Your task to perform on an android device: Go to eBay Image 0: 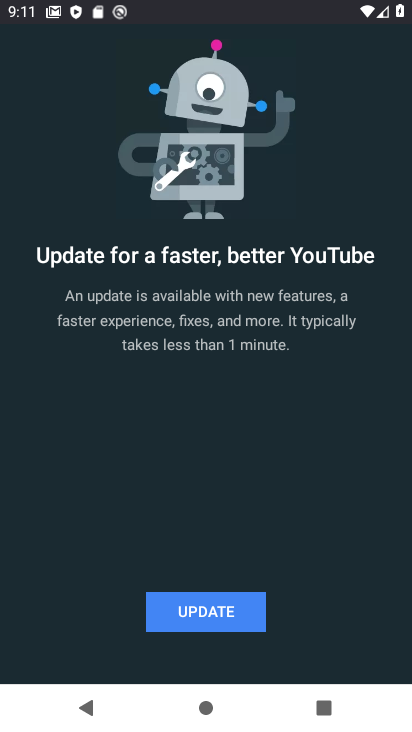
Step 0: press home button
Your task to perform on an android device: Go to eBay Image 1: 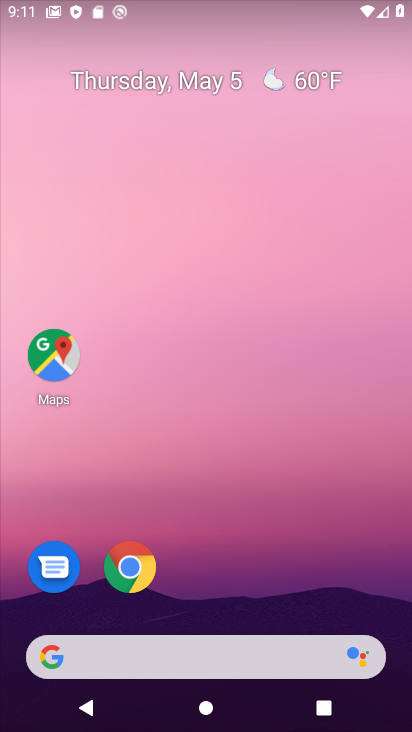
Step 1: click (211, 588)
Your task to perform on an android device: Go to eBay Image 2: 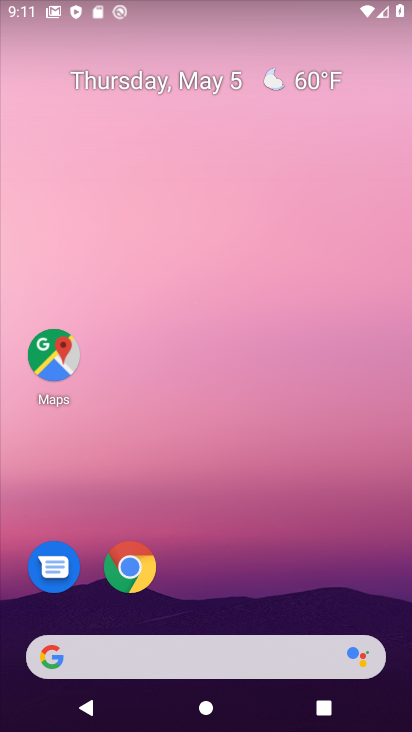
Step 2: click (141, 570)
Your task to perform on an android device: Go to eBay Image 3: 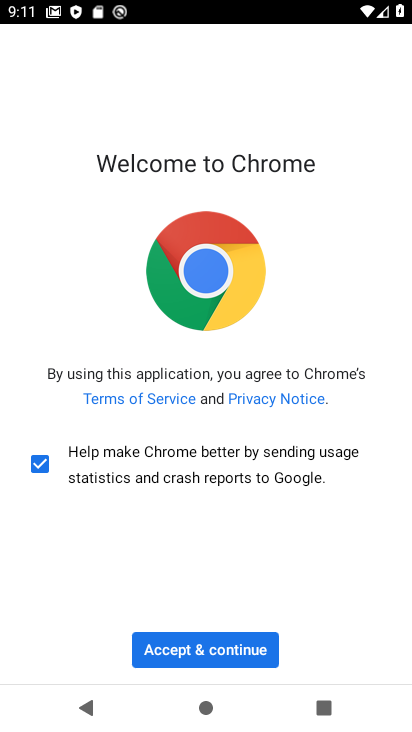
Step 3: click (168, 645)
Your task to perform on an android device: Go to eBay Image 4: 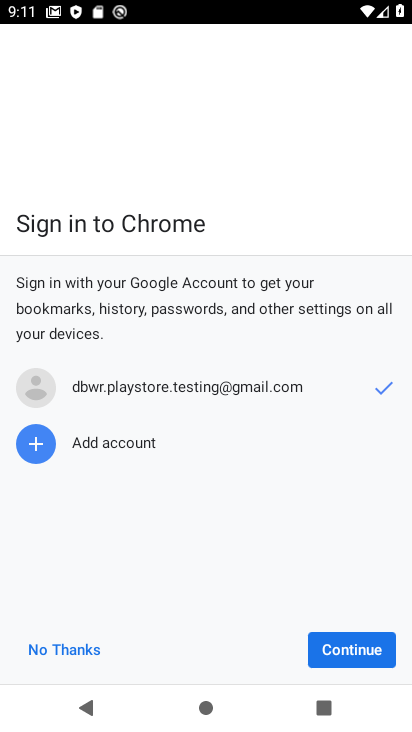
Step 4: click (369, 644)
Your task to perform on an android device: Go to eBay Image 5: 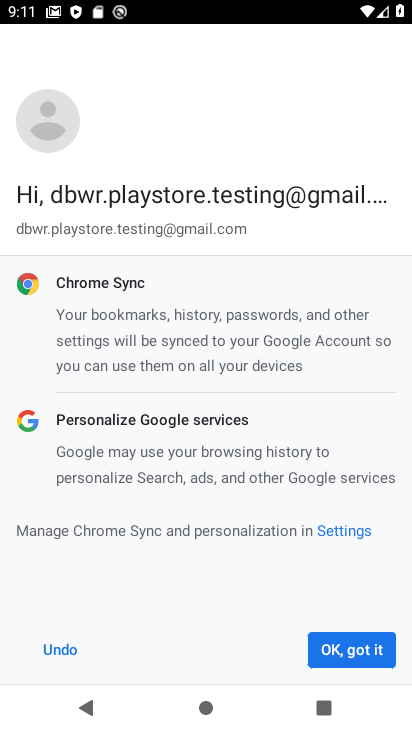
Step 5: click (361, 643)
Your task to perform on an android device: Go to eBay Image 6: 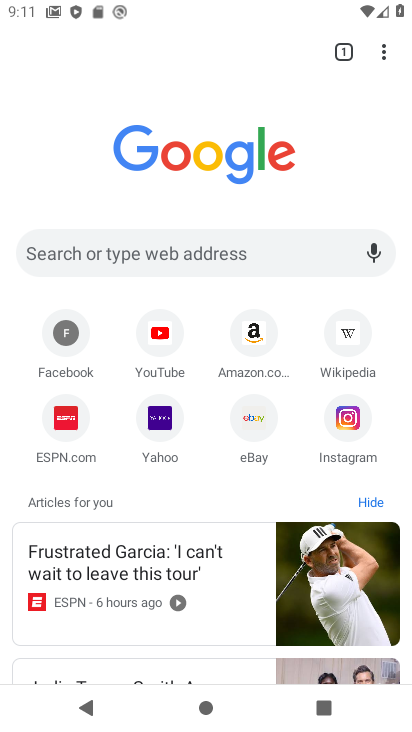
Step 6: click (260, 421)
Your task to perform on an android device: Go to eBay Image 7: 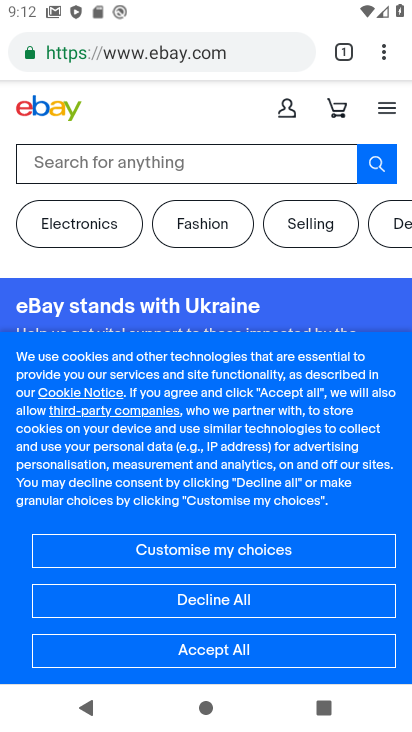
Step 7: task complete